Your task to perform on an android device: open sync settings in chrome Image 0: 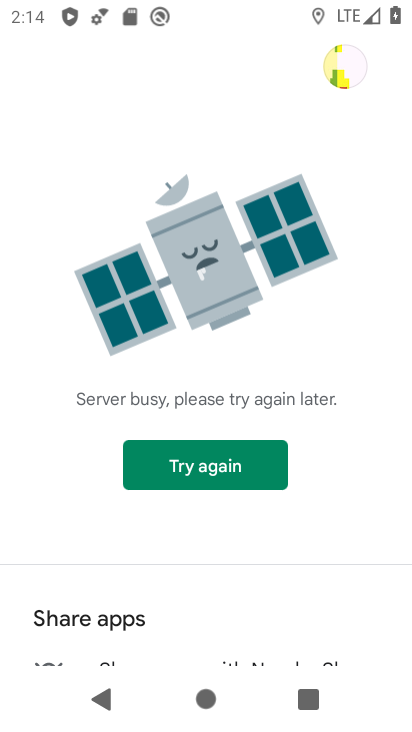
Step 0: press back button
Your task to perform on an android device: open sync settings in chrome Image 1: 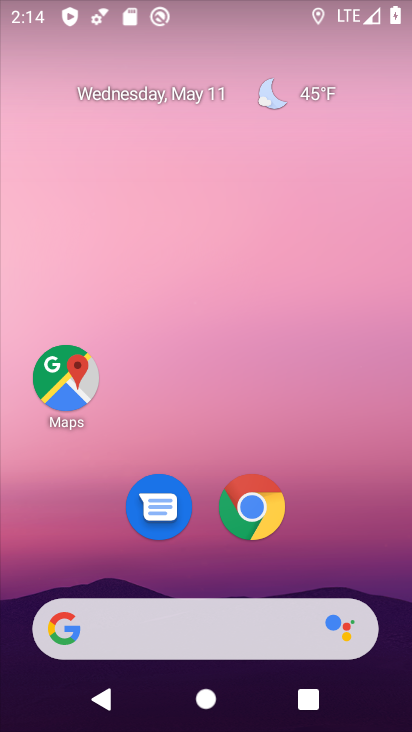
Step 1: drag from (325, 553) to (264, 67)
Your task to perform on an android device: open sync settings in chrome Image 2: 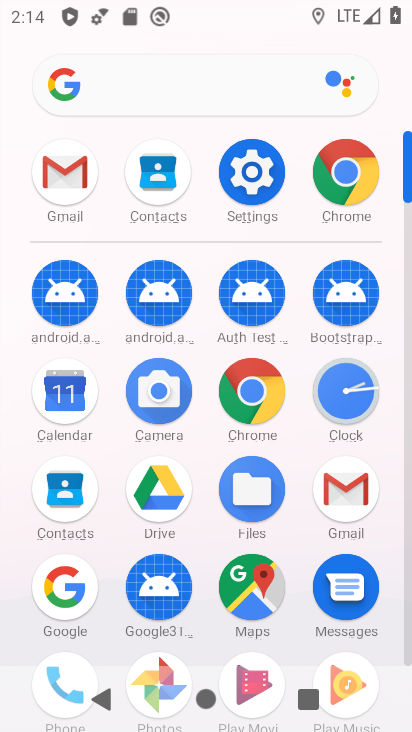
Step 2: drag from (10, 588) to (6, 280)
Your task to perform on an android device: open sync settings in chrome Image 3: 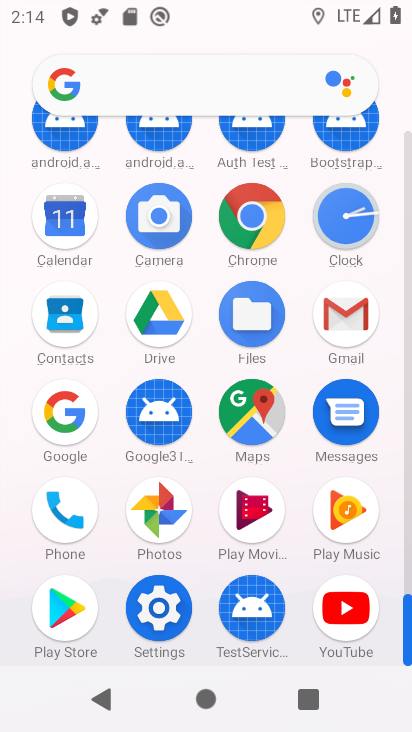
Step 3: click (253, 216)
Your task to perform on an android device: open sync settings in chrome Image 4: 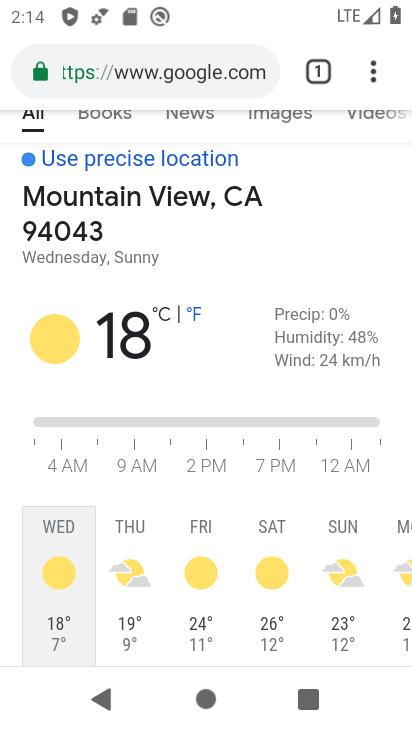
Step 4: drag from (370, 77) to (98, 501)
Your task to perform on an android device: open sync settings in chrome Image 5: 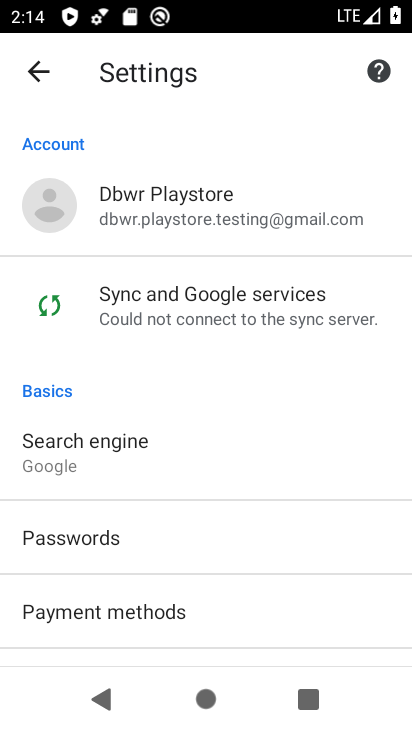
Step 5: click (185, 298)
Your task to perform on an android device: open sync settings in chrome Image 6: 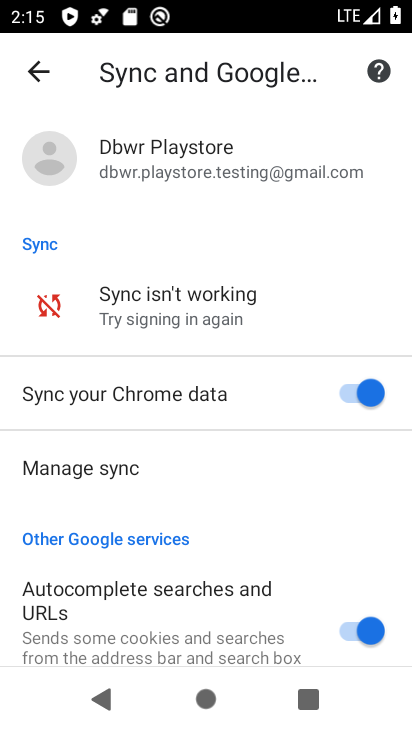
Step 6: task complete